Your task to perform on an android device: move an email to a new category in the gmail app Image 0: 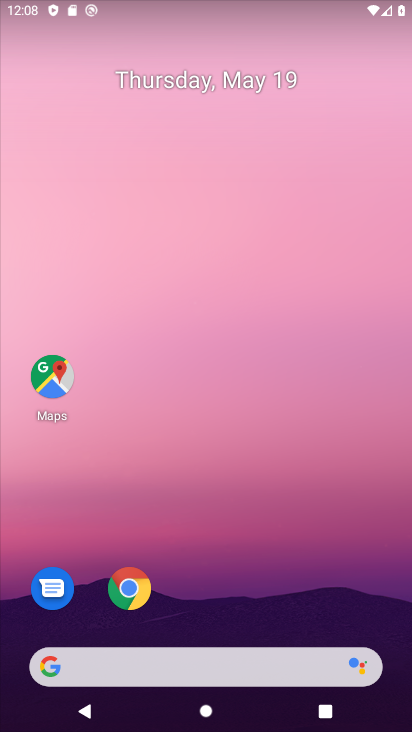
Step 0: drag from (267, 611) to (151, 108)
Your task to perform on an android device: move an email to a new category in the gmail app Image 1: 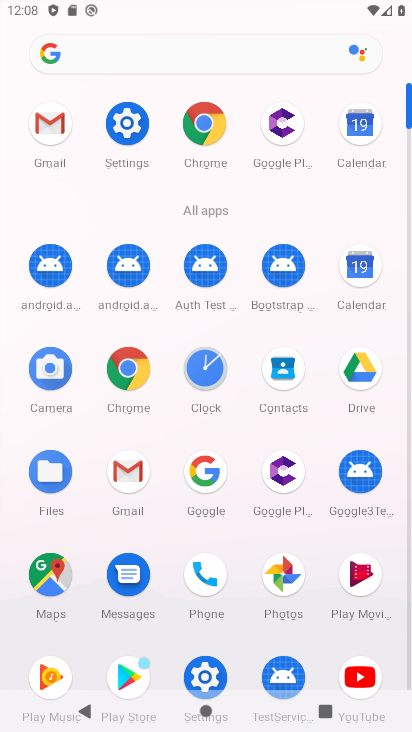
Step 1: click (36, 119)
Your task to perform on an android device: move an email to a new category in the gmail app Image 2: 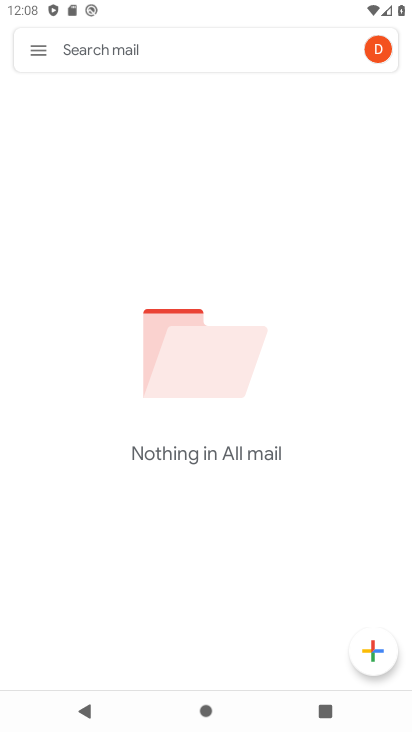
Step 2: task complete